Your task to perform on an android device: remove spam from my inbox in the gmail app Image 0: 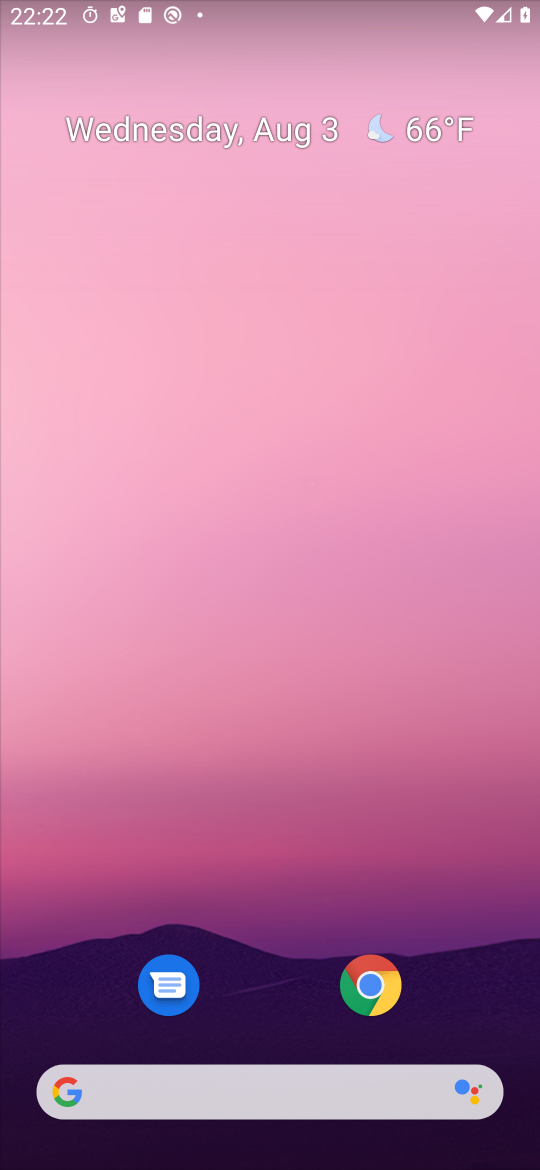
Step 0: drag from (267, 941) to (235, 374)
Your task to perform on an android device: remove spam from my inbox in the gmail app Image 1: 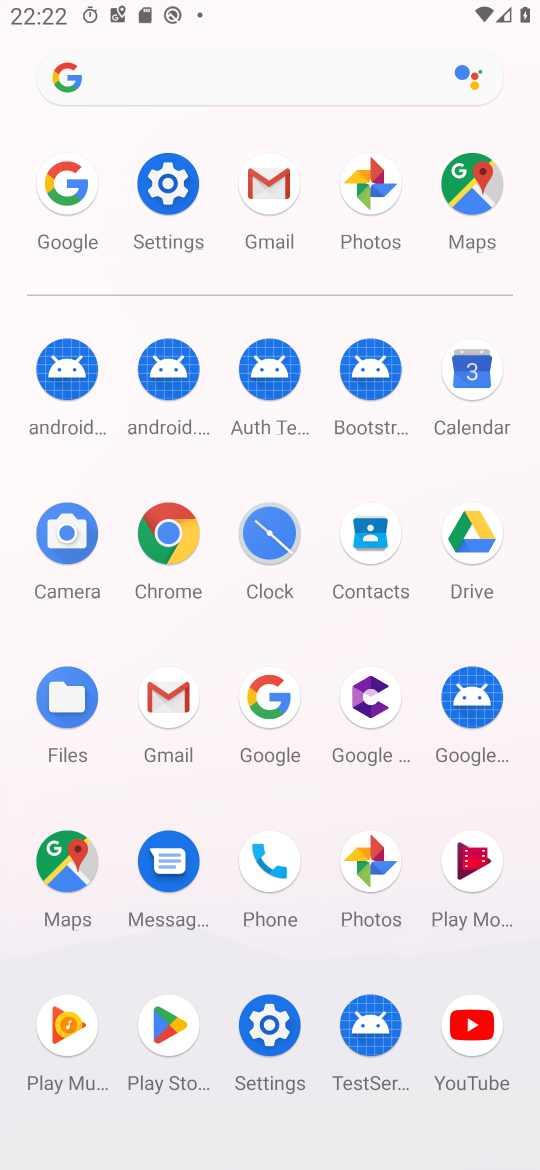
Step 1: click (276, 184)
Your task to perform on an android device: remove spam from my inbox in the gmail app Image 2: 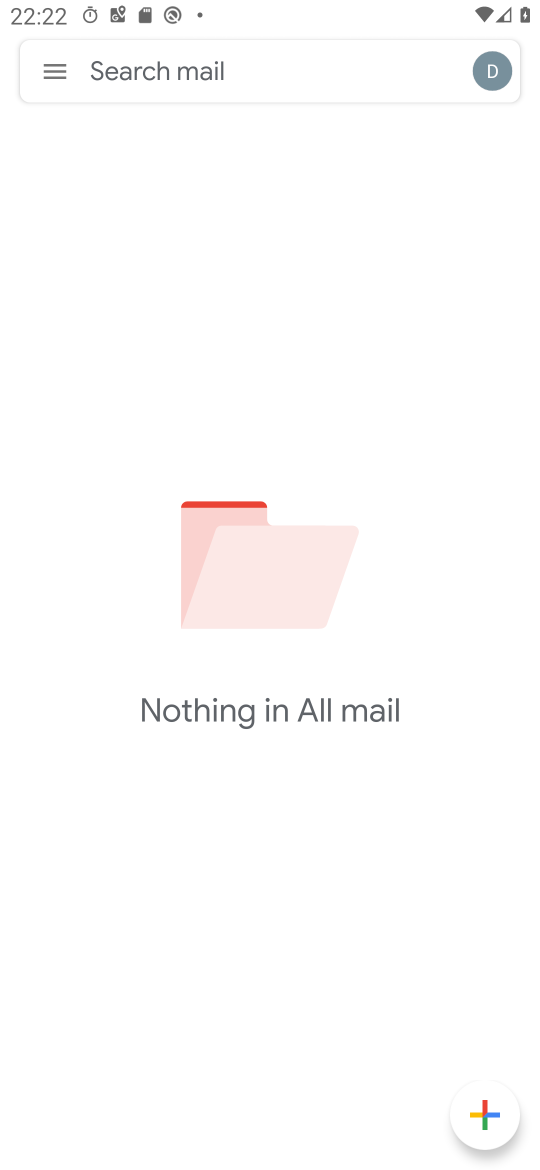
Step 2: click (71, 77)
Your task to perform on an android device: remove spam from my inbox in the gmail app Image 3: 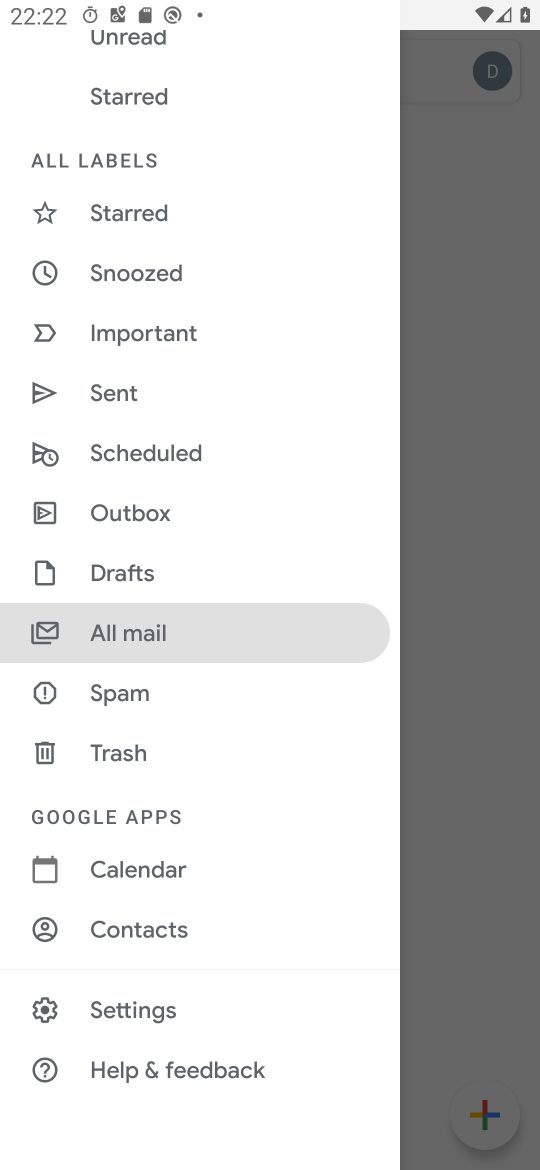
Step 3: click (217, 696)
Your task to perform on an android device: remove spam from my inbox in the gmail app Image 4: 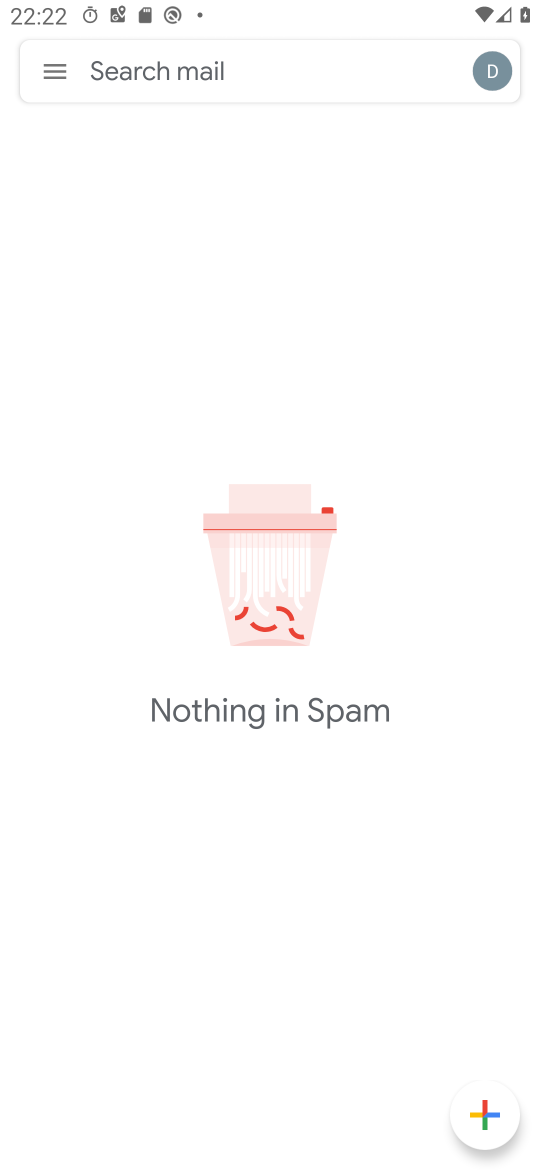
Step 4: task complete